Your task to perform on an android device: toggle data saver in the chrome app Image 0: 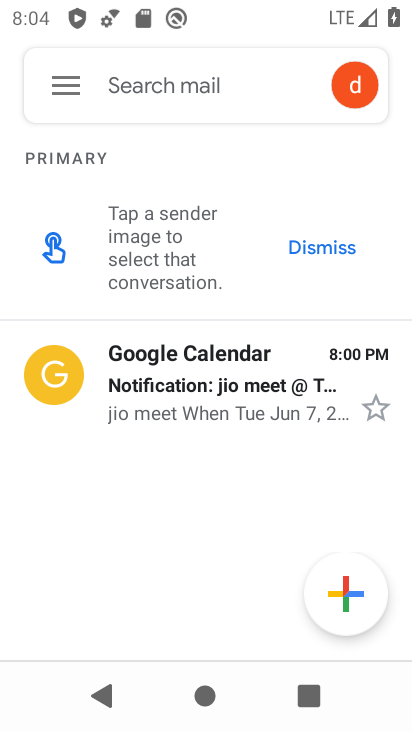
Step 0: press home button
Your task to perform on an android device: toggle data saver in the chrome app Image 1: 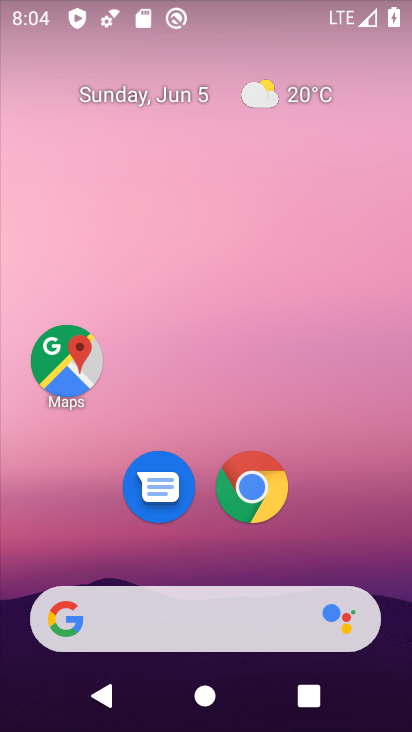
Step 1: click (253, 483)
Your task to perform on an android device: toggle data saver in the chrome app Image 2: 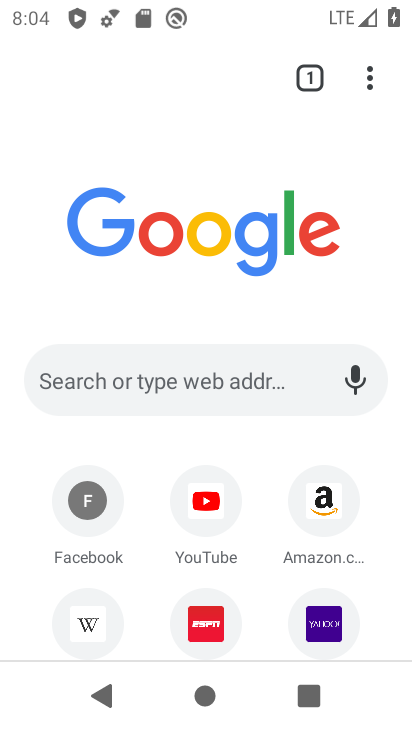
Step 2: click (366, 89)
Your task to perform on an android device: toggle data saver in the chrome app Image 3: 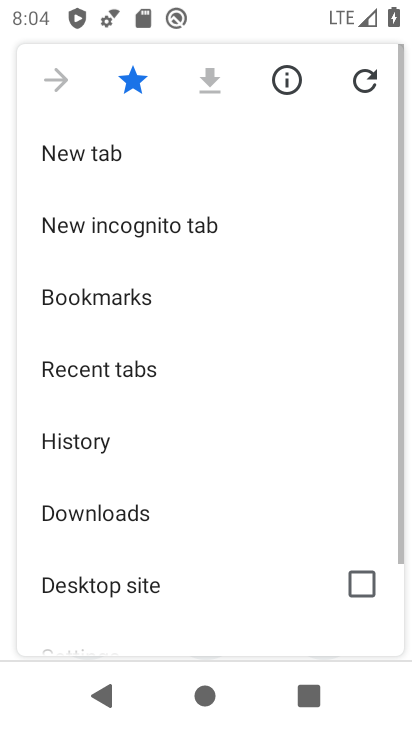
Step 3: drag from (206, 503) to (247, 197)
Your task to perform on an android device: toggle data saver in the chrome app Image 4: 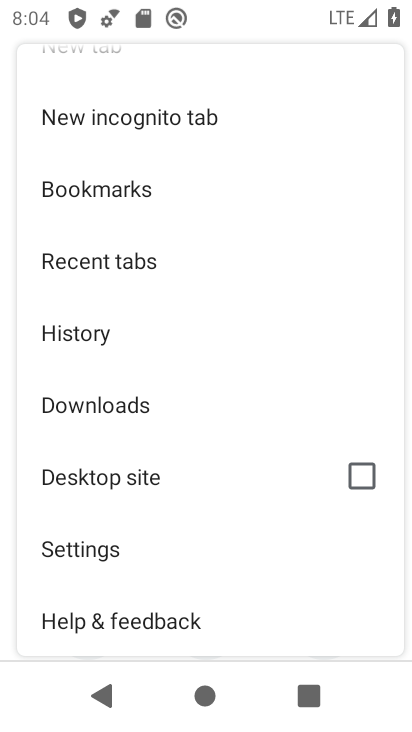
Step 4: click (115, 540)
Your task to perform on an android device: toggle data saver in the chrome app Image 5: 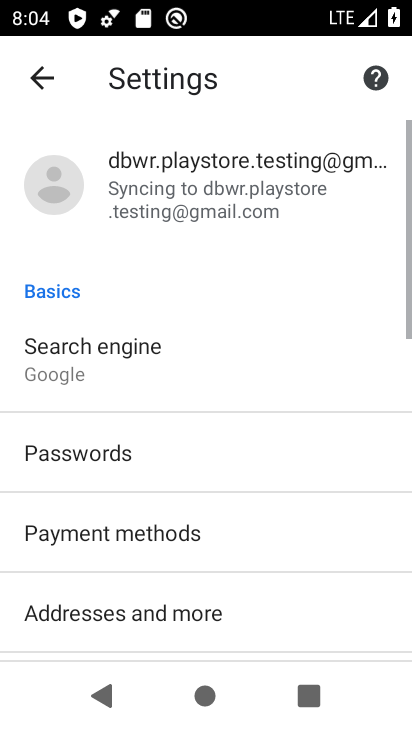
Step 5: drag from (153, 591) to (213, 260)
Your task to perform on an android device: toggle data saver in the chrome app Image 6: 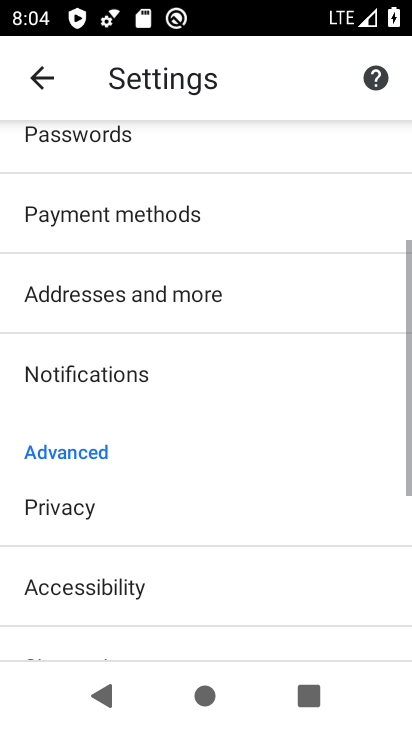
Step 6: drag from (196, 602) to (240, 235)
Your task to perform on an android device: toggle data saver in the chrome app Image 7: 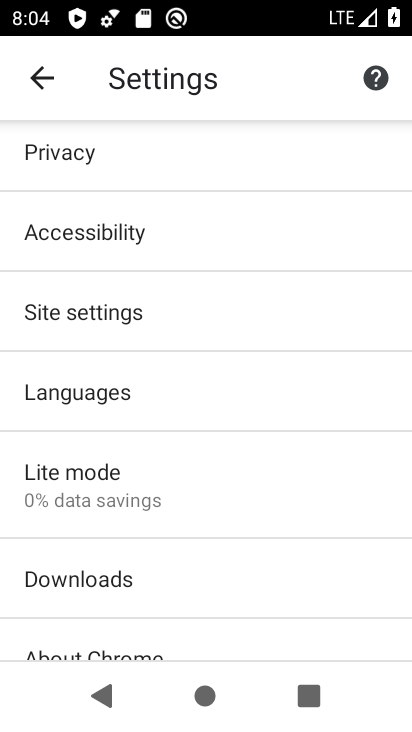
Step 7: click (124, 473)
Your task to perform on an android device: toggle data saver in the chrome app Image 8: 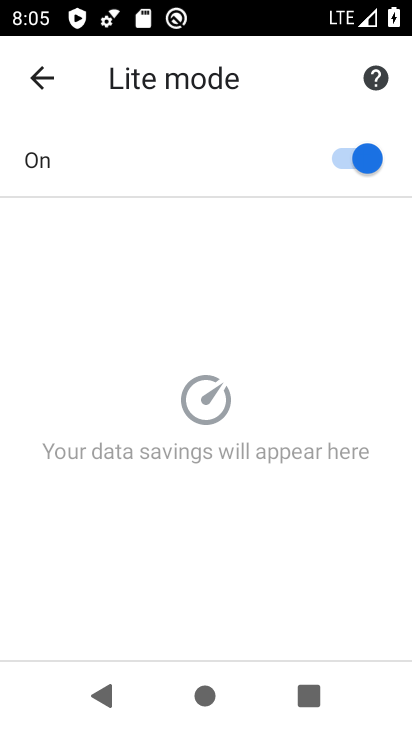
Step 8: click (345, 168)
Your task to perform on an android device: toggle data saver in the chrome app Image 9: 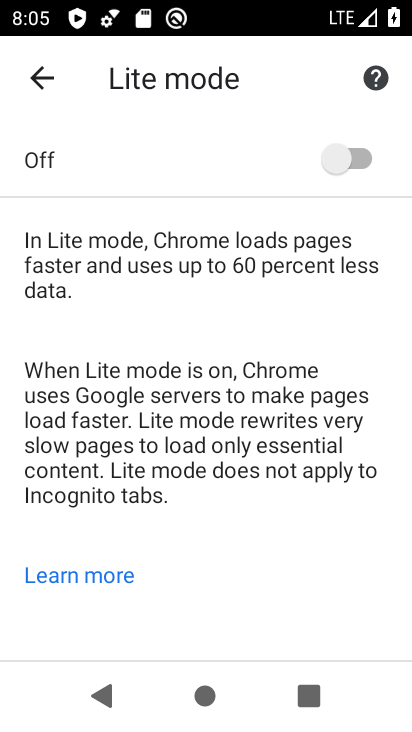
Step 9: task complete